Your task to perform on an android device: find photos in the google photos app Image 0: 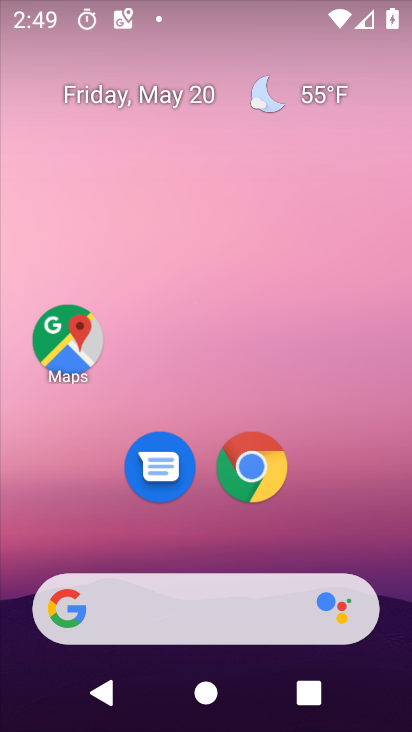
Step 0: drag from (190, 541) to (268, 35)
Your task to perform on an android device: find photos in the google photos app Image 1: 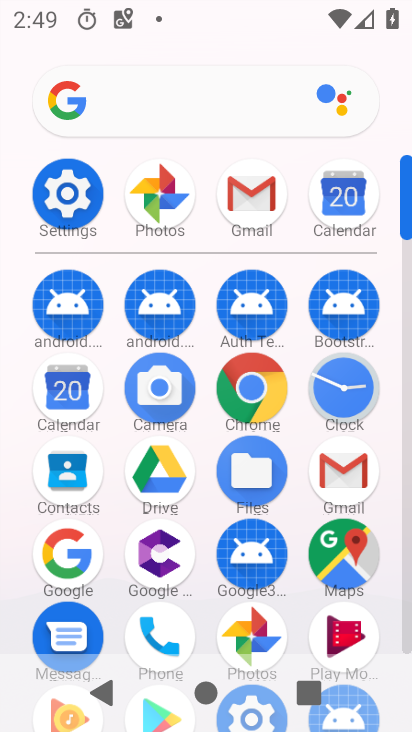
Step 1: click (157, 202)
Your task to perform on an android device: find photos in the google photos app Image 2: 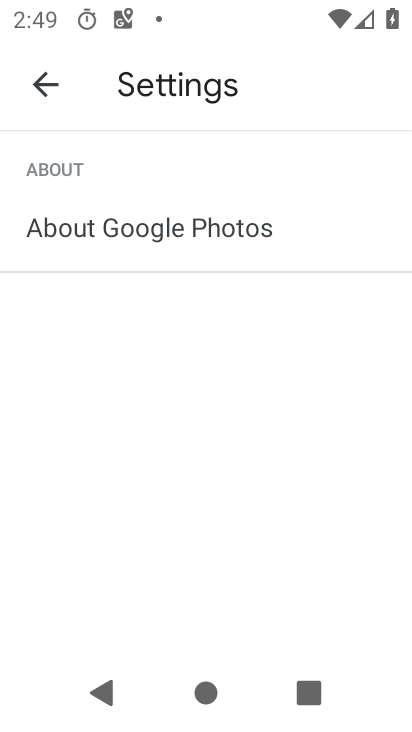
Step 2: click (40, 86)
Your task to perform on an android device: find photos in the google photos app Image 3: 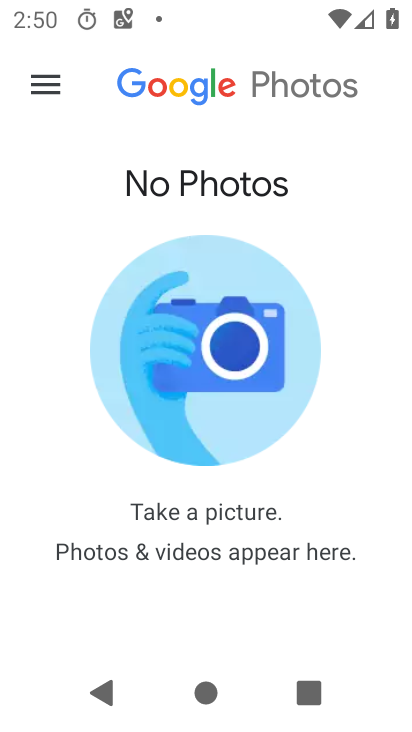
Step 3: click (41, 69)
Your task to perform on an android device: find photos in the google photos app Image 4: 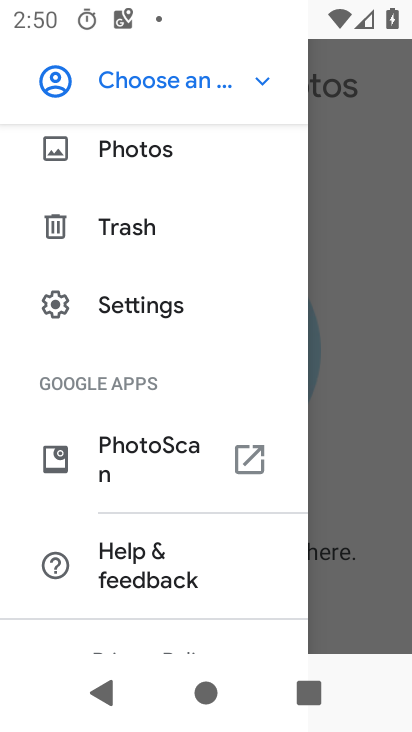
Step 4: click (102, 139)
Your task to perform on an android device: find photos in the google photos app Image 5: 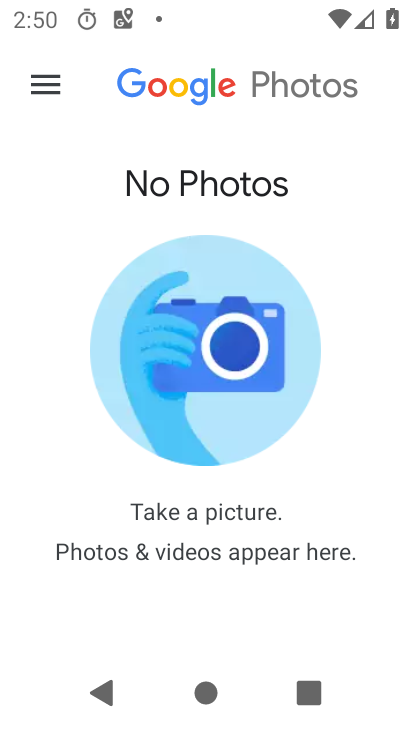
Step 5: task complete